Your task to perform on an android device: toggle wifi Image 0: 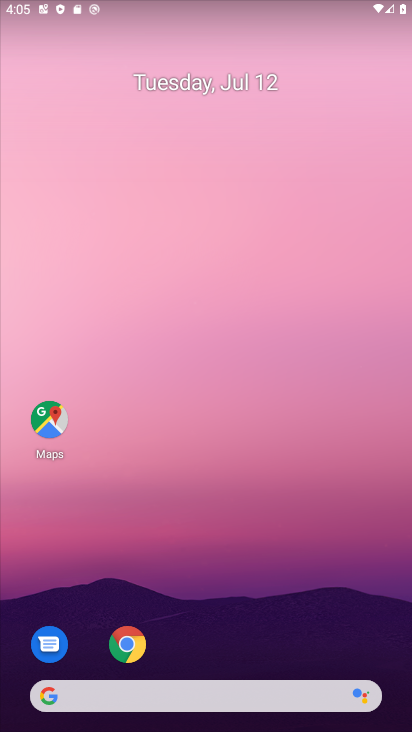
Step 0: drag from (198, 683) to (178, 228)
Your task to perform on an android device: toggle wifi Image 1: 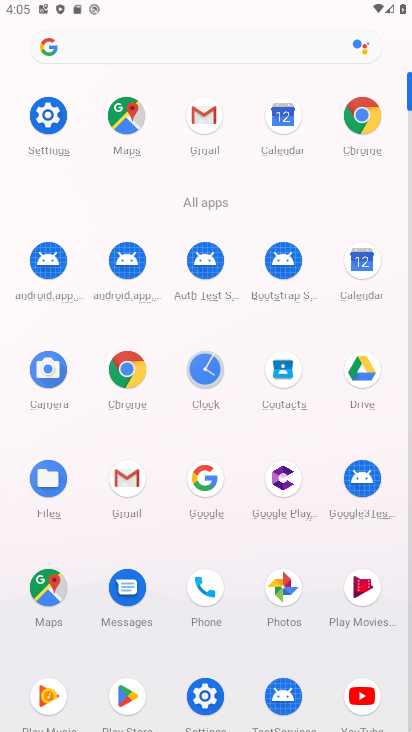
Step 1: click (47, 121)
Your task to perform on an android device: toggle wifi Image 2: 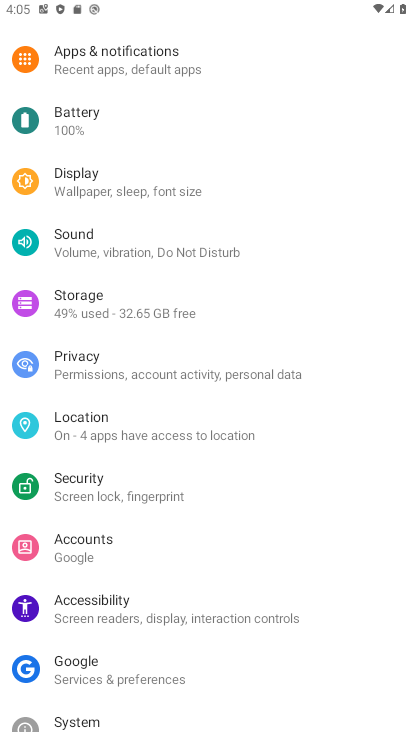
Step 2: drag from (140, 74) to (92, 541)
Your task to perform on an android device: toggle wifi Image 3: 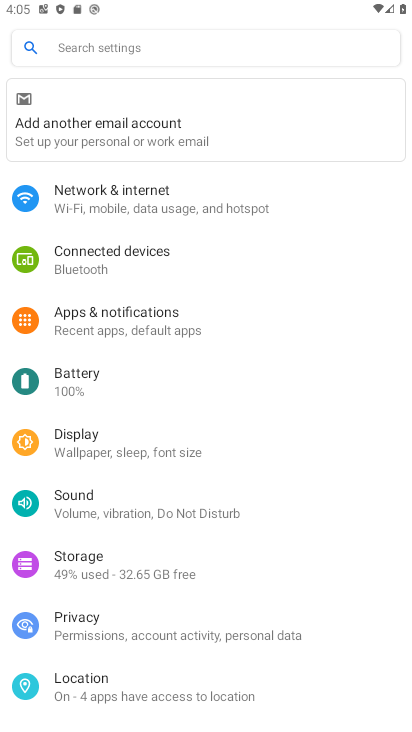
Step 3: click (120, 211)
Your task to perform on an android device: toggle wifi Image 4: 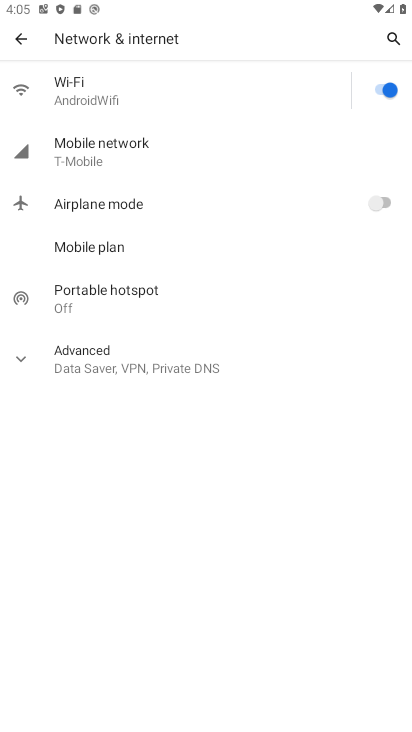
Step 4: click (381, 83)
Your task to perform on an android device: toggle wifi Image 5: 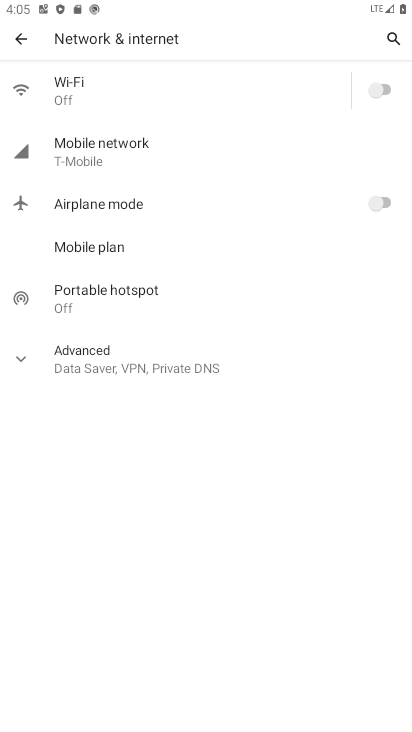
Step 5: task complete